Your task to perform on an android device: turn on data saver in the chrome app Image 0: 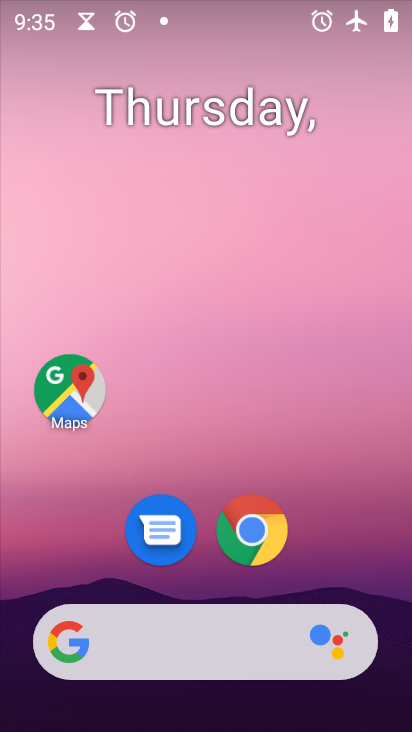
Step 0: drag from (342, 534) to (296, 21)
Your task to perform on an android device: turn on data saver in the chrome app Image 1: 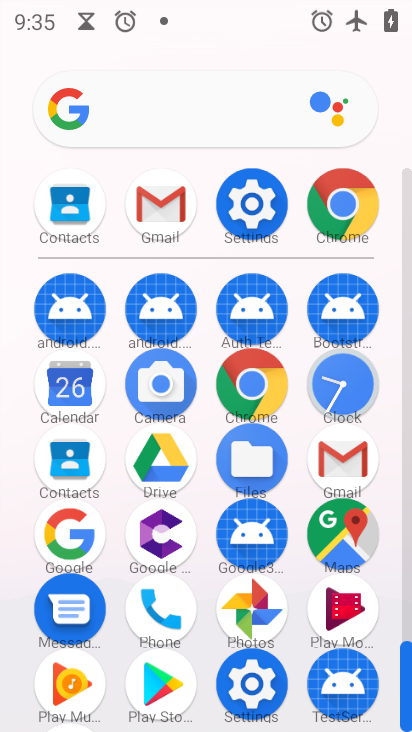
Step 1: drag from (17, 566) to (22, 266)
Your task to perform on an android device: turn on data saver in the chrome app Image 2: 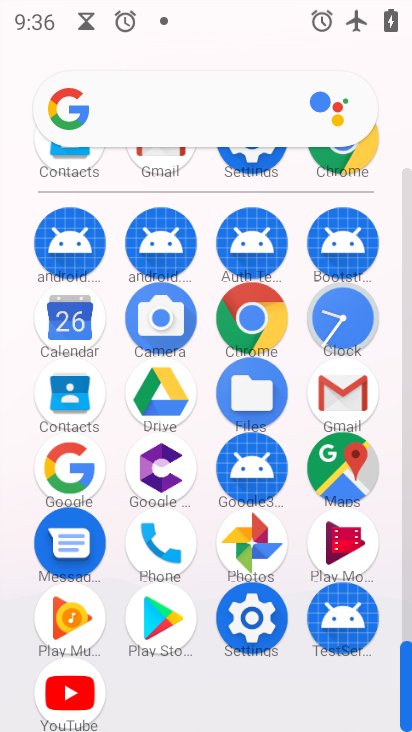
Step 2: click (249, 315)
Your task to perform on an android device: turn on data saver in the chrome app Image 3: 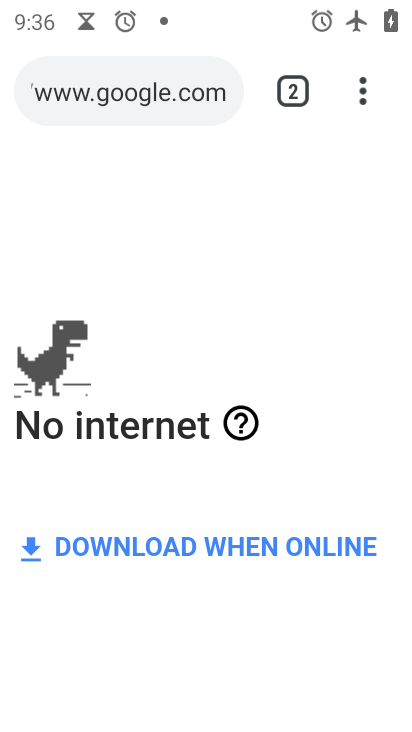
Step 3: drag from (360, 88) to (83, 546)
Your task to perform on an android device: turn on data saver in the chrome app Image 4: 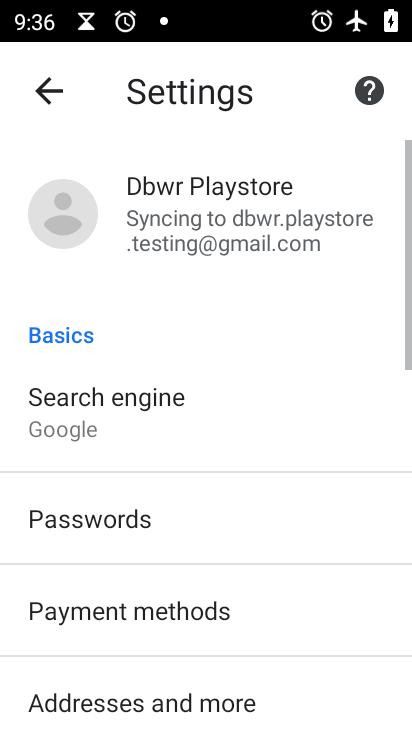
Step 4: drag from (320, 558) to (288, 201)
Your task to perform on an android device: turn on data saver in the chrome app Image 5: 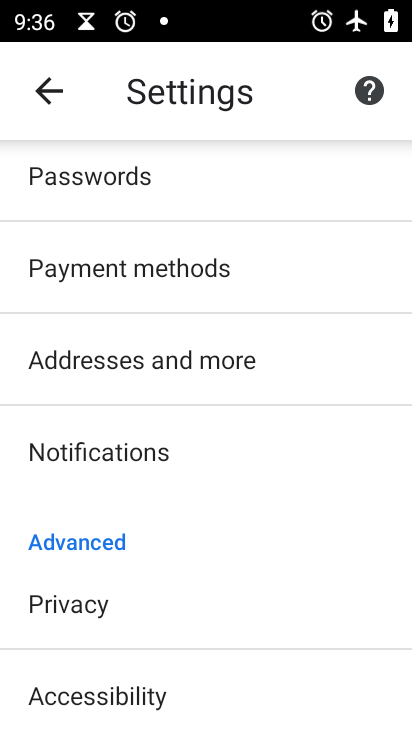
Step 5: drag from (286, 610) to (283, 200)
Your task to perform on an android device: turn on data saver in the chrome app Image 6: 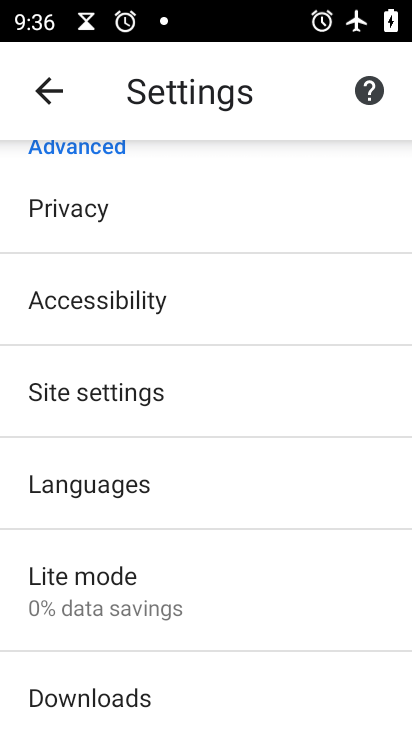
Step 6: drag from (233, 600) to (232, 232)
Your task to perform on an android device: turn on data saver in the chrome app Image 7: 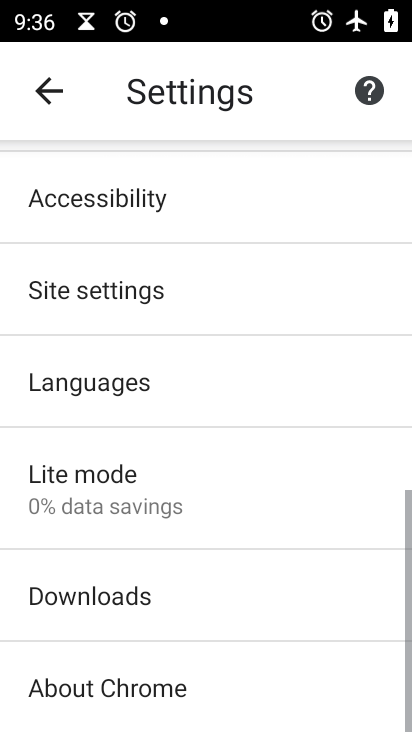
Step 7: click (168, 484)
Your task to perform on an android device: turn on data saver in the chrome app Image 8: 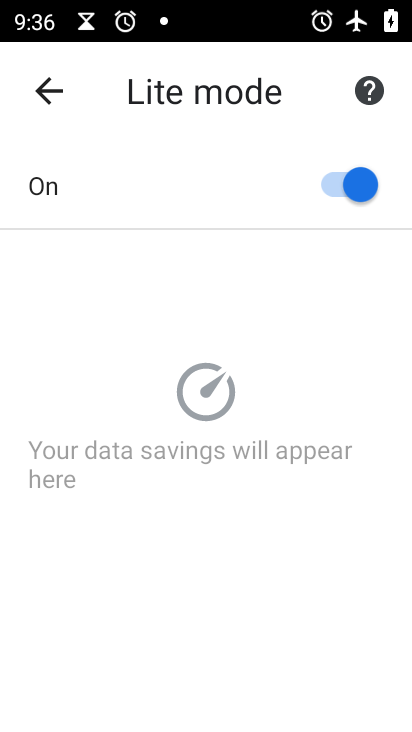
Step 8: task complete